Your task to perform on an android device: turn notification dots on Image 0: 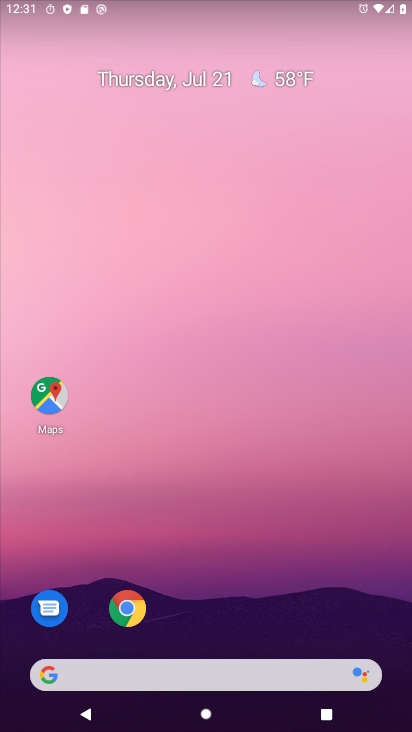
Step 0: drag from (217, 638) to (233, 145)
Your task to perform on an android device: turn notification dots on Image 1: 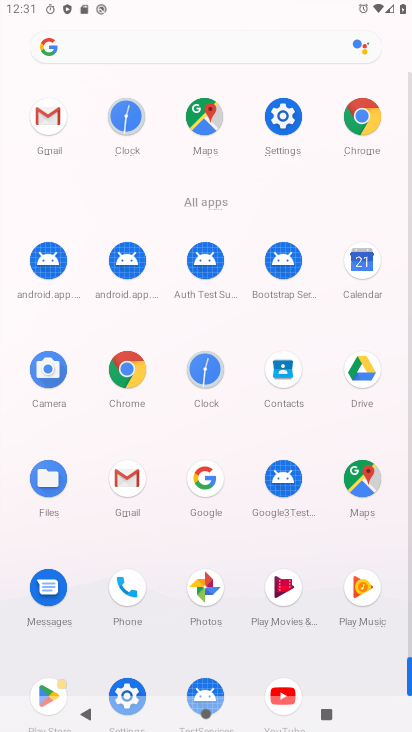
Step 1: click (286, 111)
Your task to perform on an android device: turn notification dots on Image 2: 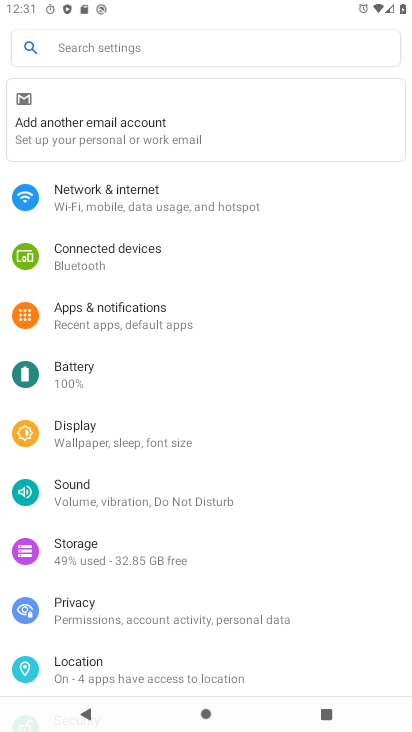
Step 2: click (147, 313)
Your task to perform on an android device: turn notification dots on Image 3: 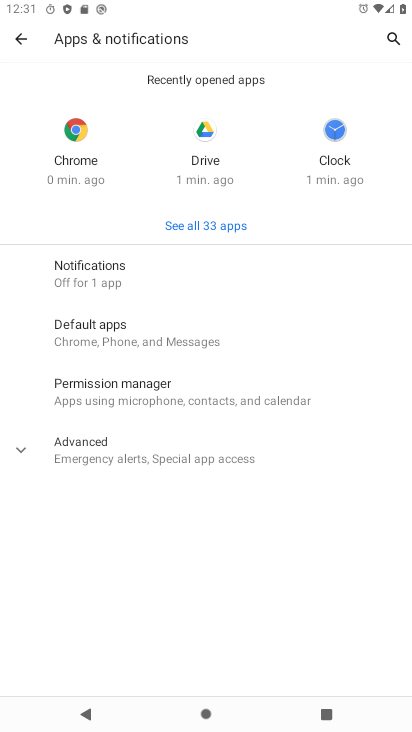
Step 3: click (137, 269)
Your task to perform on an android device: turn notification dots on Image 4: 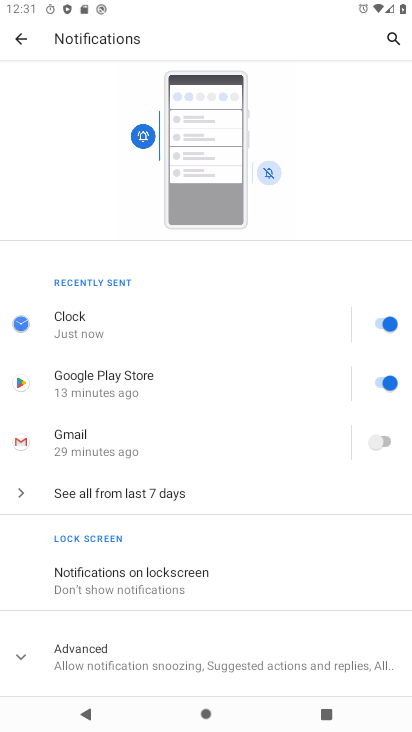
Step 4: click (120, 655)
Your task to perform on an android device: turn notification dots on Image 5: 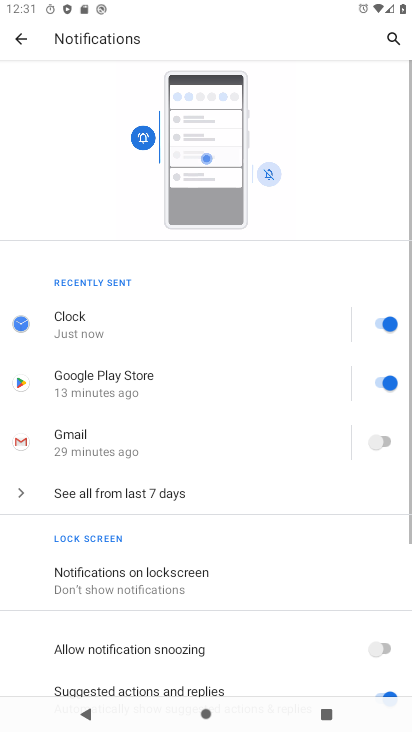
Step 5: task complete